Your task to perform on an android device: toggle sleep mode Image 0: 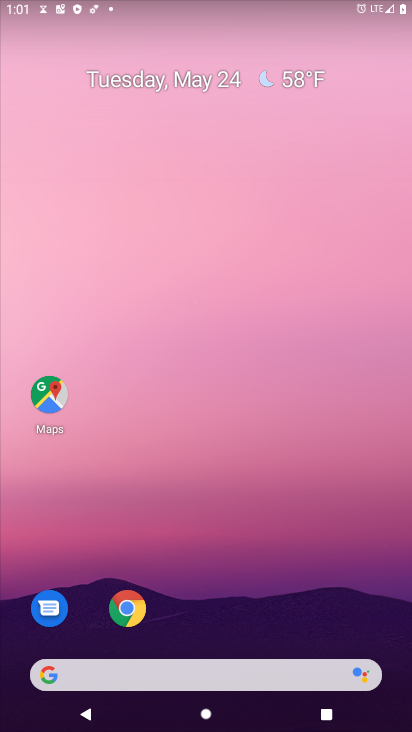
Step 0: drag from (327, 687) to (296, 174)
Your task to perform on an android device: toggle sleep mode Image 1: 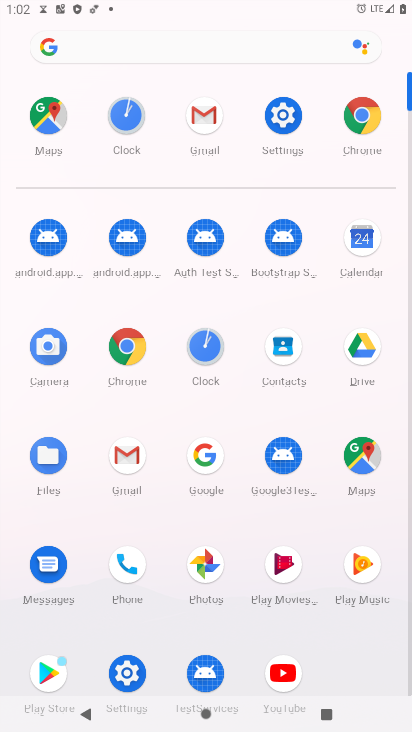
Step 1: click (278, 109)
Your task to perform on an android device: toggle sleep mode Image 2: 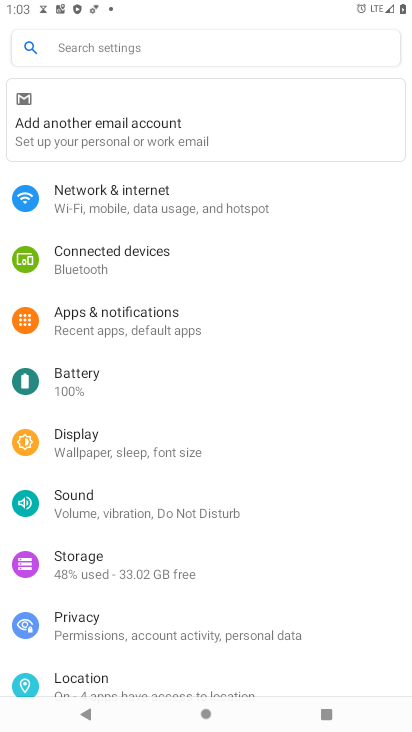
Step 2: click (231, 33)
Your task to perform on an android device: toggle sleep mode Image 3: 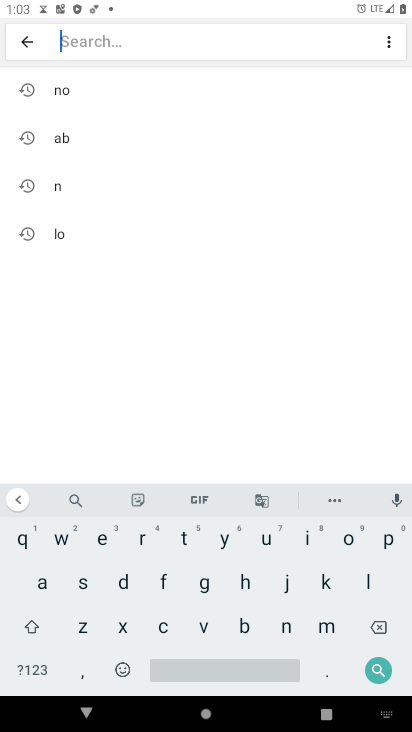
Step 3: click (79, 589)
Your task to perform on an android device: toggle sleep mode Image 4: 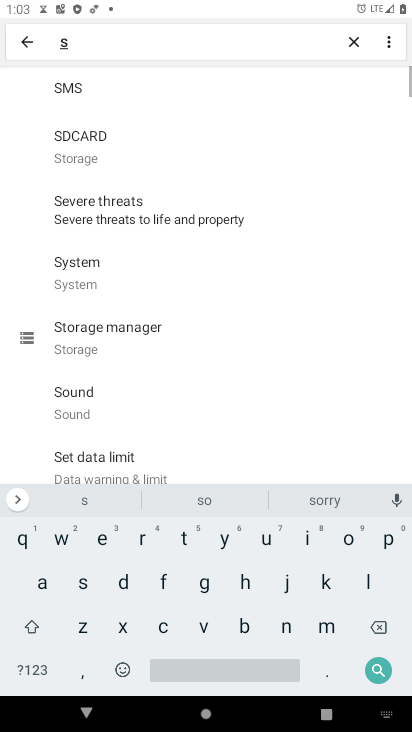
Step 4: click (372, 585)
Your task to perform on an android device: toggle sleep mode Image 5: 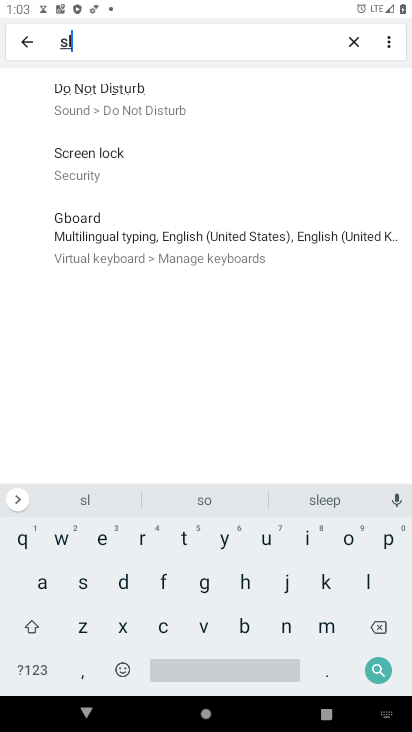
Step 5: click (109, 94)
Your task to perform on an android device: toggle sleep mode Image 6: 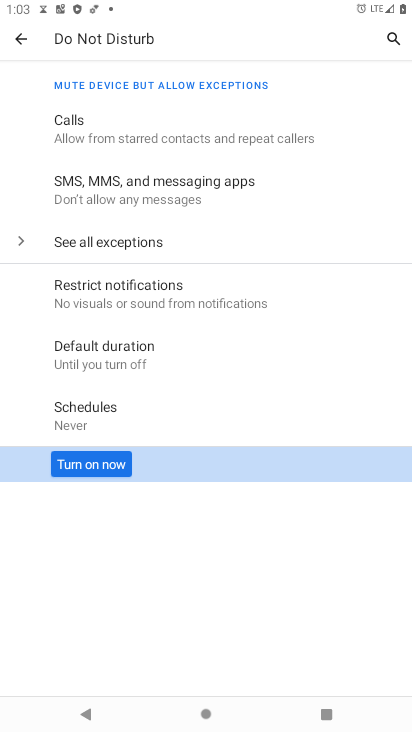
Step 6: task complete